Your task to perform on an android device: Go to sound settings Image 0: 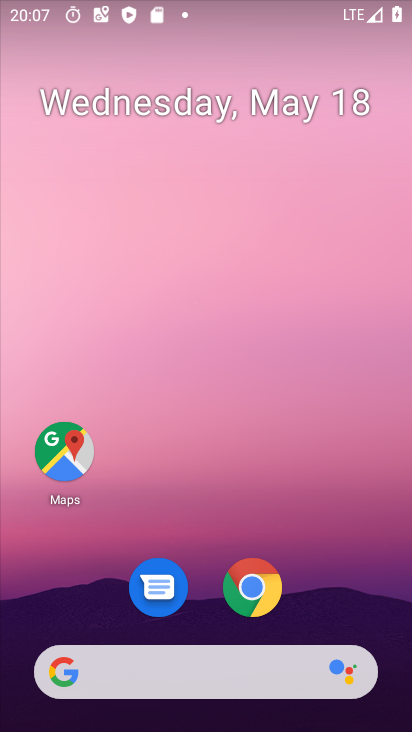
Step 0: drag from (189, 632) to (172, 178)
Your task to perform on an android device: Go to sound settings Image 1: 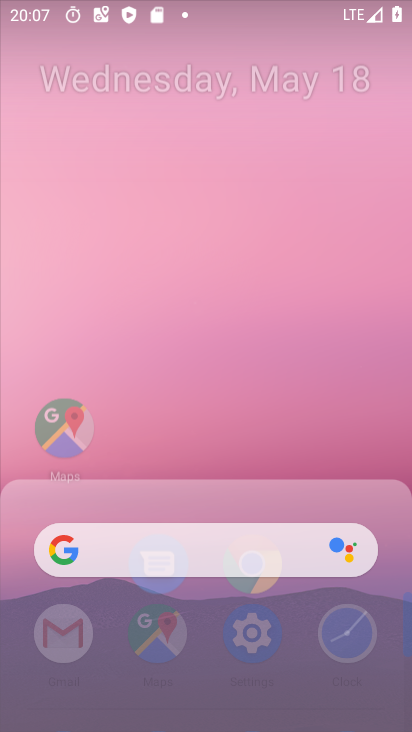
Step 1: click (172, 178)
Your task to perform on an android device: Go to sound settings Image 2: 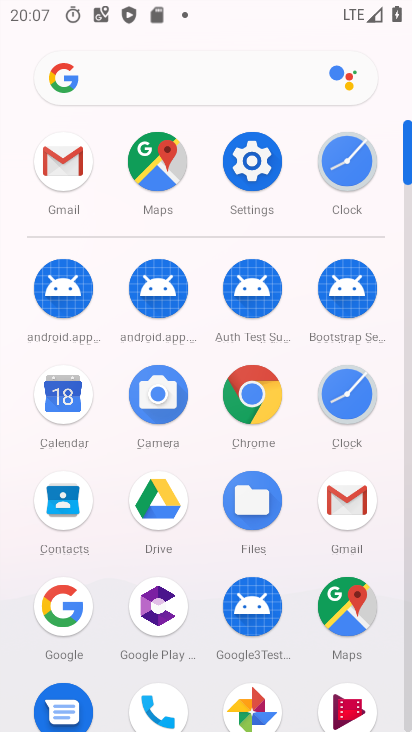
Step 2: click (258, 173)
Your task to perform on an android device: Go to sound settings Image 3: 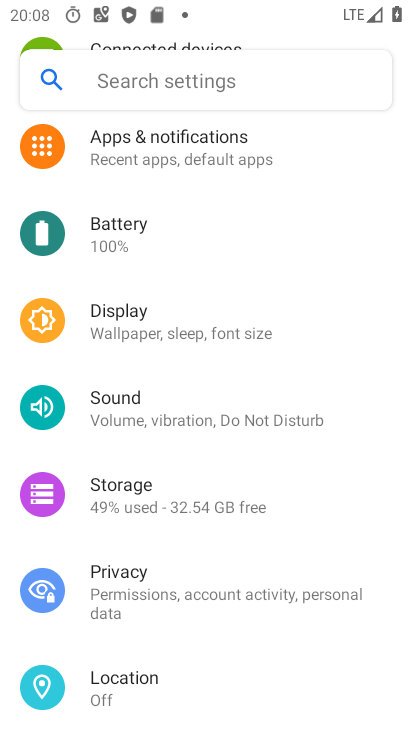
Step 3: click (133, 403)
Your task to perform on an android device: Go to sound settings Image 4: 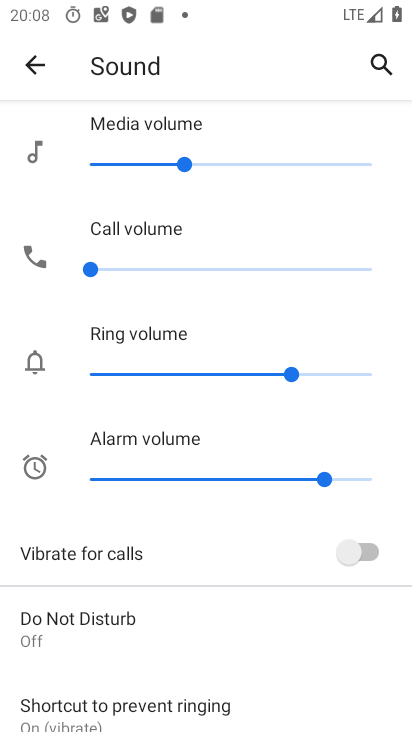
Step 4: task complete